Your task to perform on an android device: Open accessibility settings Image 0: 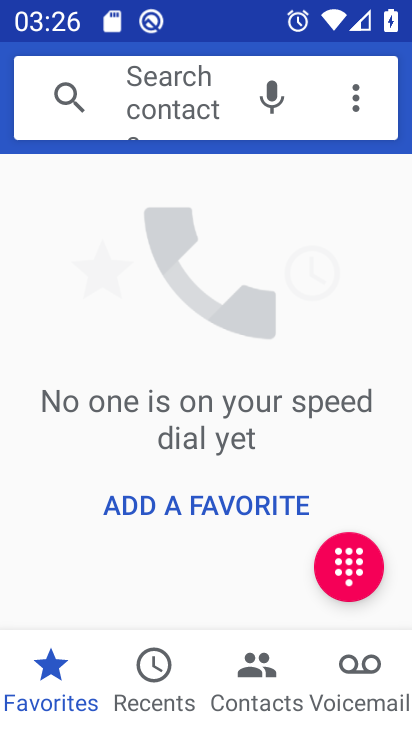
Step 0: press home button
Your task to perform on an android device: Open accessibility settings Image 1: 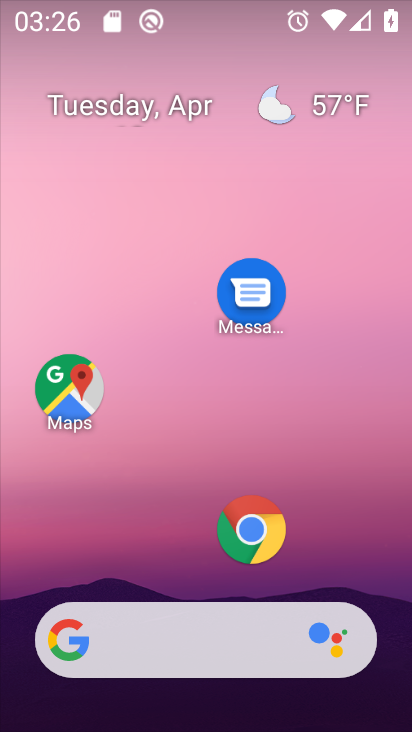
Step 1: drag from (137, 500) to (141, 114)
Your task to perform on an android device: Open accessibility settings Image 2: 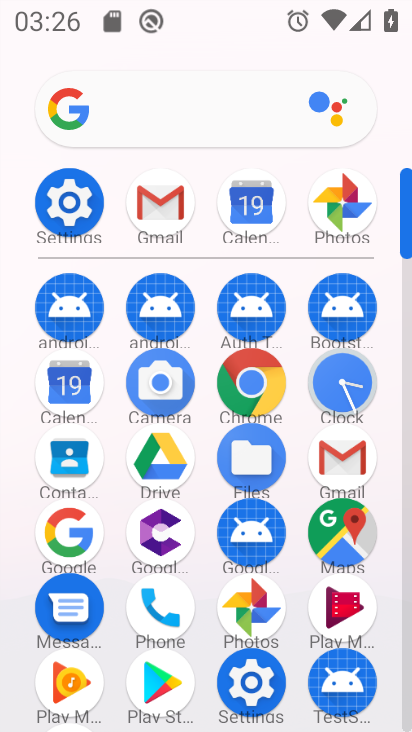
Step 2: click (66, 204)
Your task to perform on an android device: Open accessibility settings Image 3: 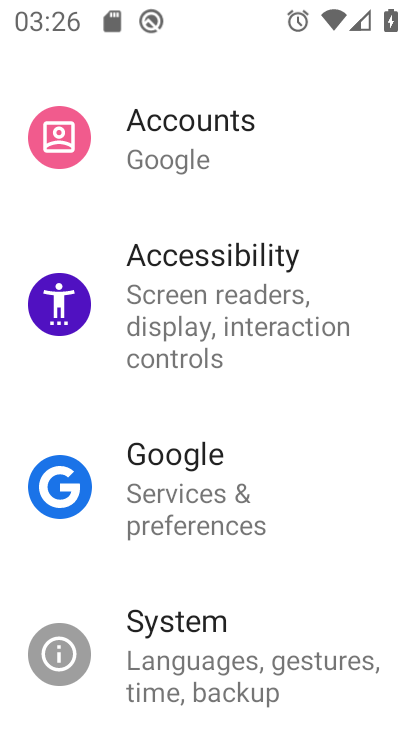
Step 3: drag from (271, 555) to (256, 419)
Your task to perform on an android device: Open accessibility settings Image 4: 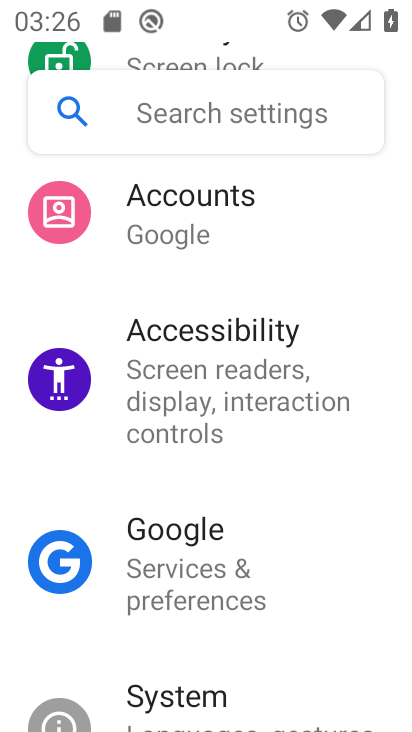
Step 4: click (185, 368)
Your task to perform on an android device: Open accessibility settings Image 5: 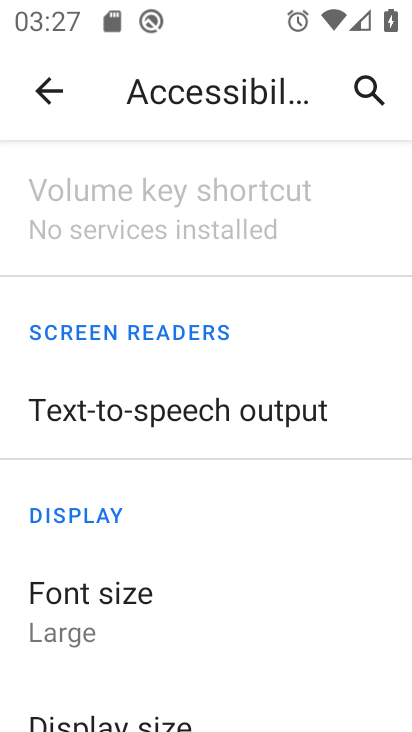
Step 5: task complete